Your task to perform on an android device: Open Reddit.com Image 0: 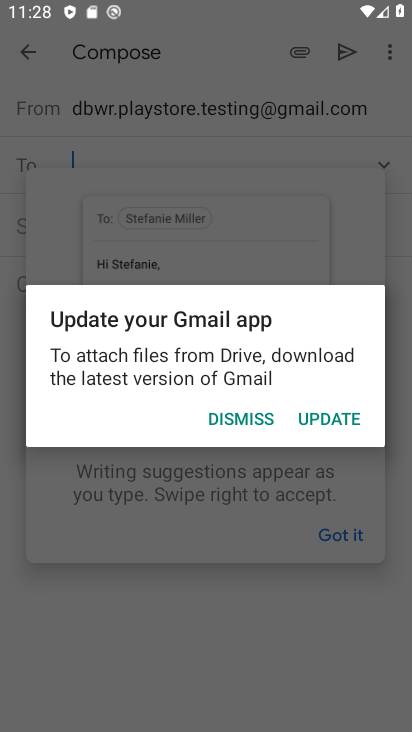
Step 0: press home button
Your task to perform on an android device: Open Reddit.com Image 1: 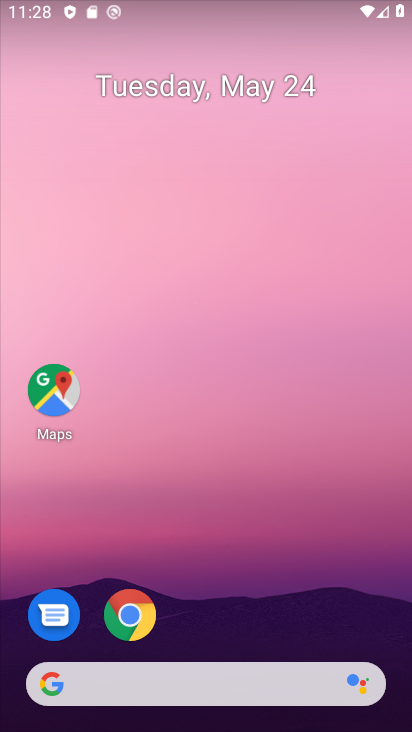
Step 1: click (128, 615)
Your task to perform on an android device: Open Reddit.com Image 2: 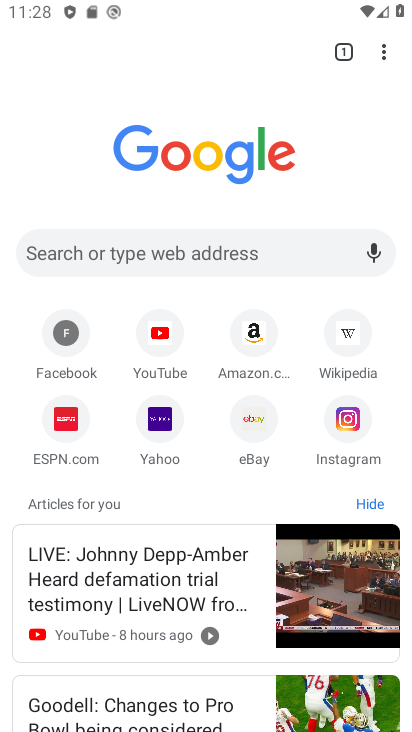
Step 2: click (218, 250)
Your task to perform on an android device: Open Reddit.com Image 3: 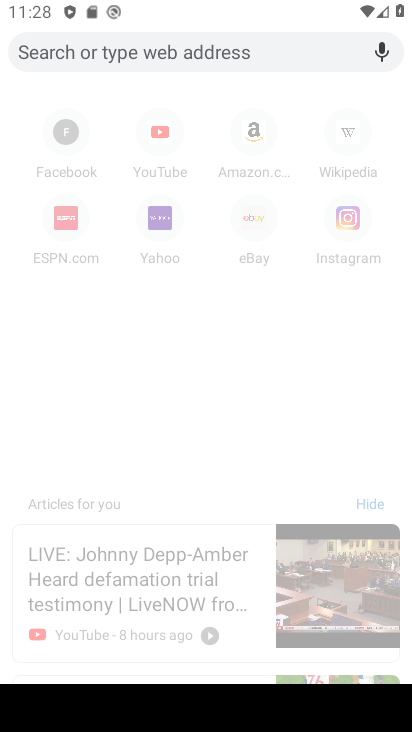
Step 3: type "Reddit.com"
Your task to perform on an android device: Open Reddit.com Image 4: 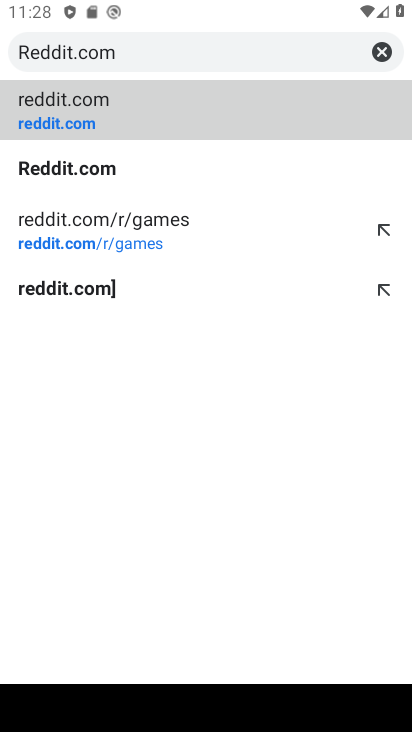
Step 4: click (60, 170)
Your task to perform on an android device: Open Reddit.com Image 5: 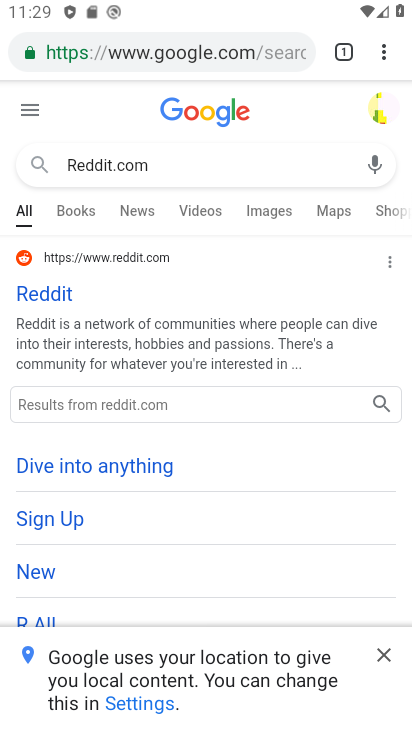
Step 5: click (38, 309)
Your task to perform on an android device: Open Reddit.com Image 6: 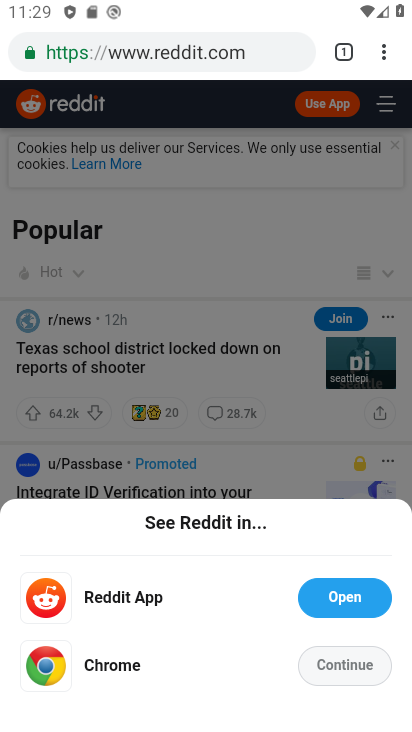
Step 6: click (342, 666)
Your task to perform on an android device: Open Reddit.com Image 7: 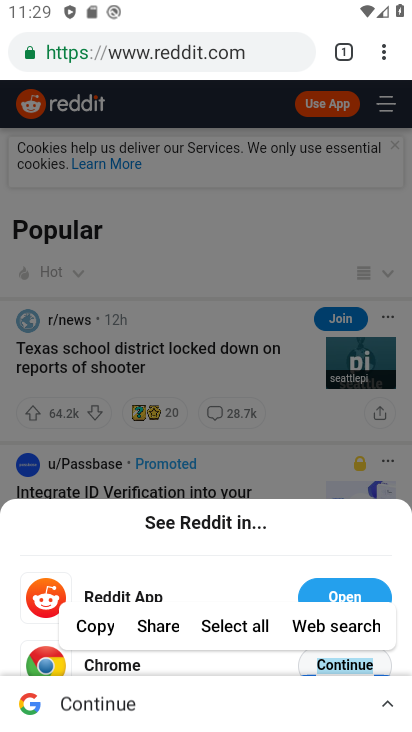
Step 7: click (355, 660)
Your task to perform on an android device: Open Reddit.com Image 8: 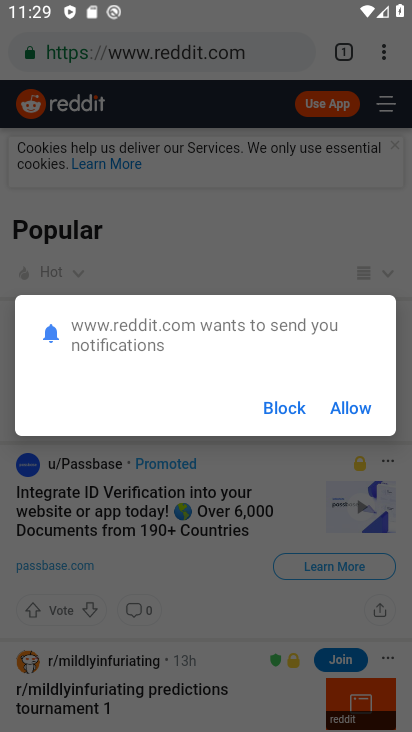
Step 8: click (355, 660)
Your task to perform on an android device: Open Reddit.com Image 9: 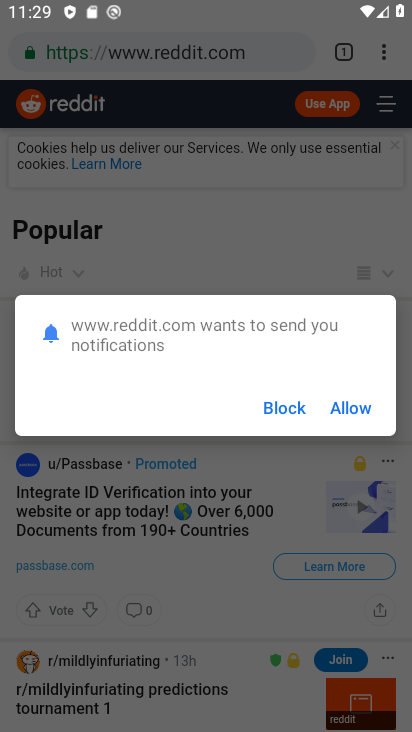
Step 9: click (361, 413)
Your task to perform on an android device: Open Reddit.com Image 10: 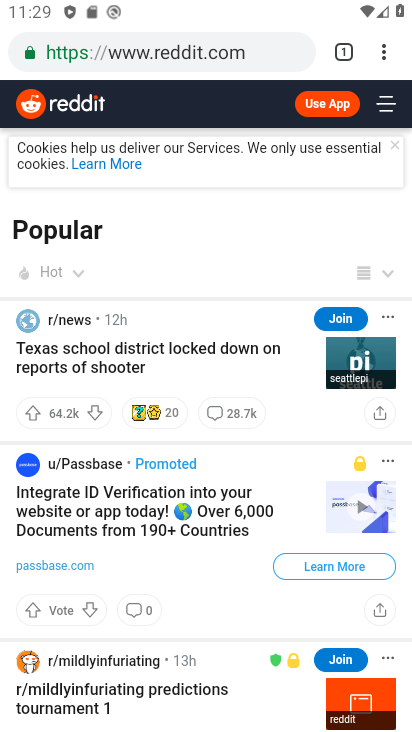
Step 10: task complete